Your task to perform on an android device: check battery use Image 0: 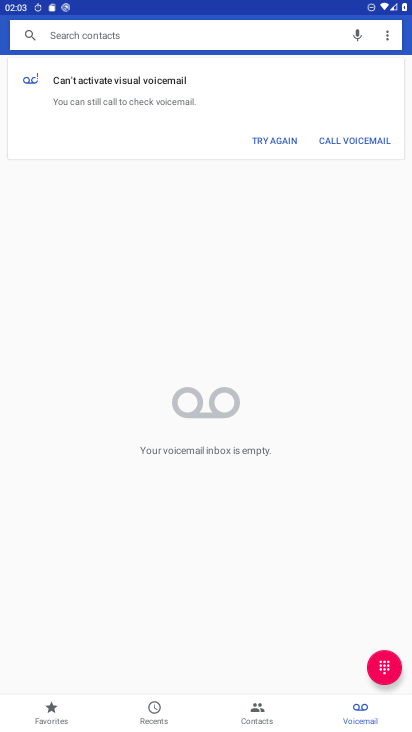
Step 0: press home button
Your task to perform on an android device: check battery use Image 1: 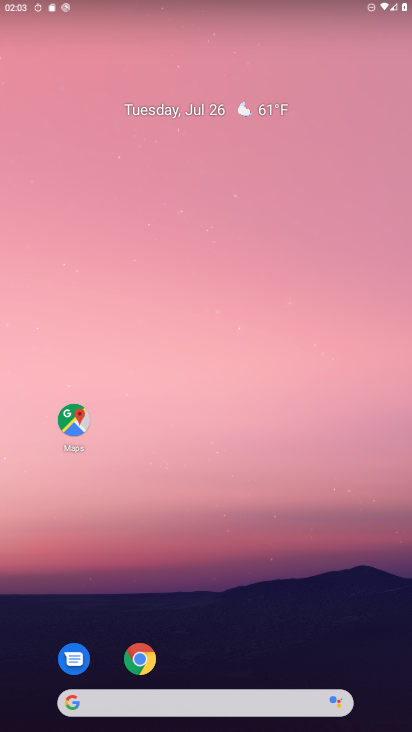
Step 1: drag from (46, 649) to (258, 15)
Your task to perform on an android device: check battery use Image 2: 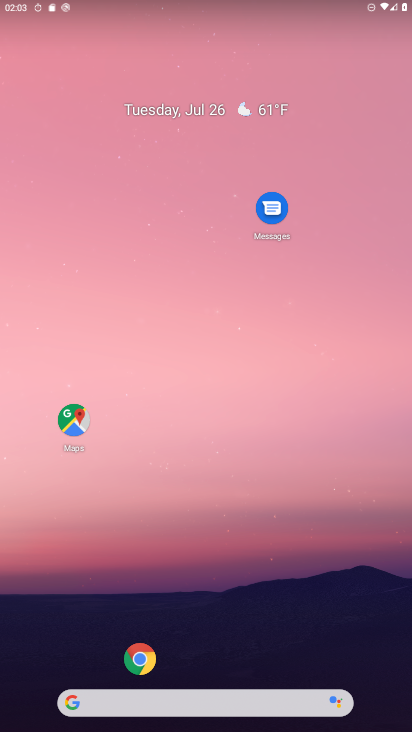
Step 2: drag from (91, 567) to (218, 214)
Your task to perform on an android device: check battery use Image 3: 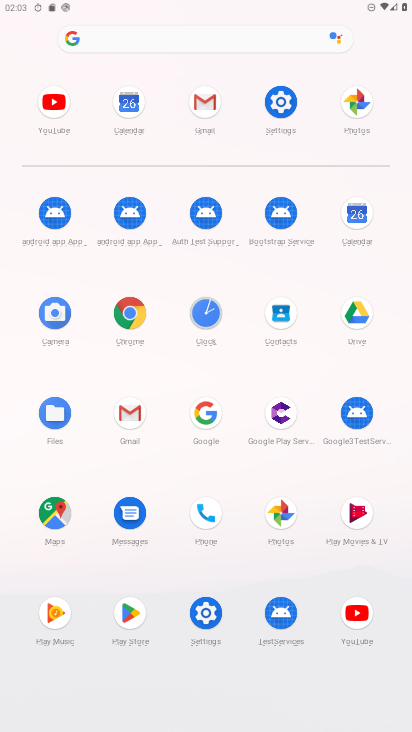
Step 3: click (211, 623)
Your task to perform on an android device: check battery use Image 4: 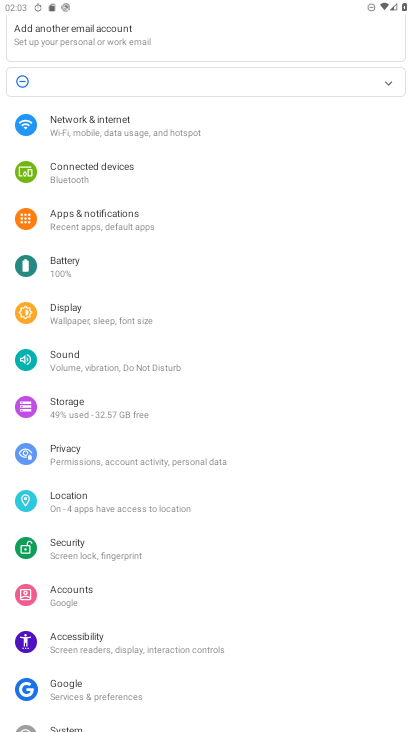
Step 4: click (76, 257)
Your task to perform on an android device: check battery use Image 5: 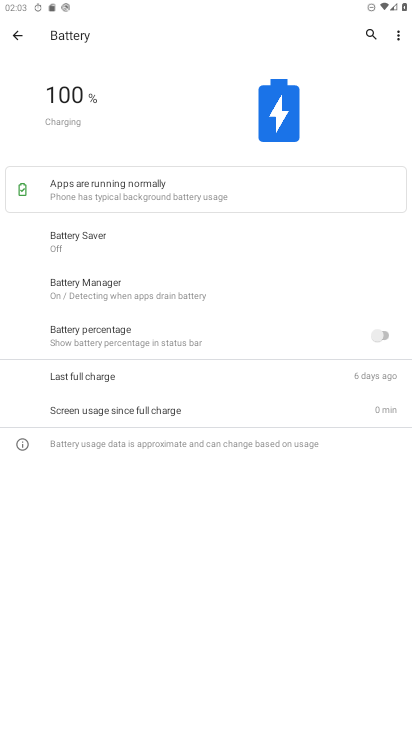
Step 5: task complete